Your task to perform on an android device: See recent photos Image 0: 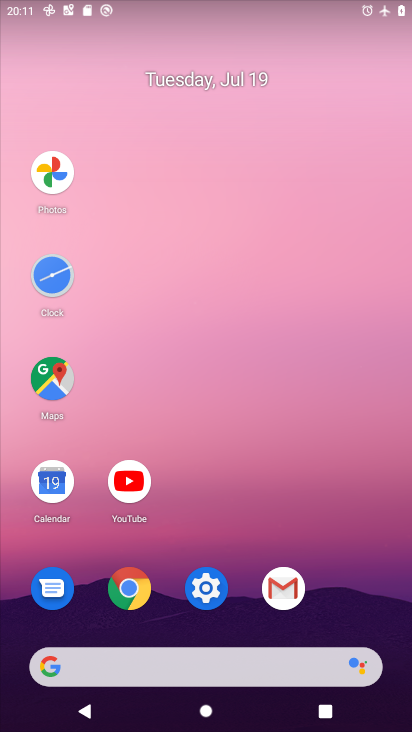
Step 0: click (52, 166)
Your task to perform on an android device: See recent photos Image 1: 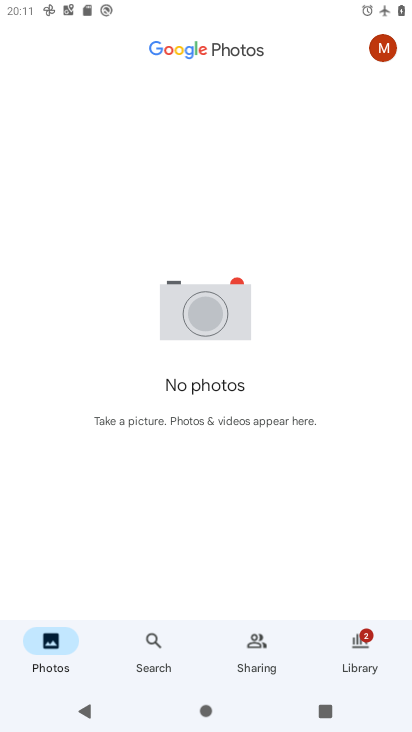
Step 1: task complete